Your task to perform on an android device: Open the calendar and show me this week's events Image 0: 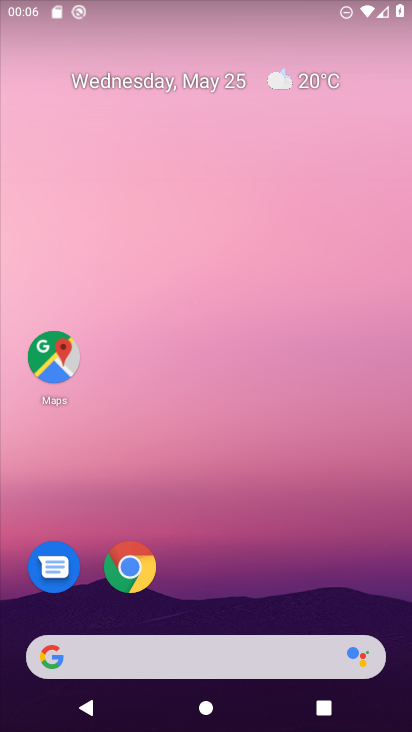
Step 0: click (189, 81)
Your task to perform on an android device: Open the calendar and show me this week's events Image 1: 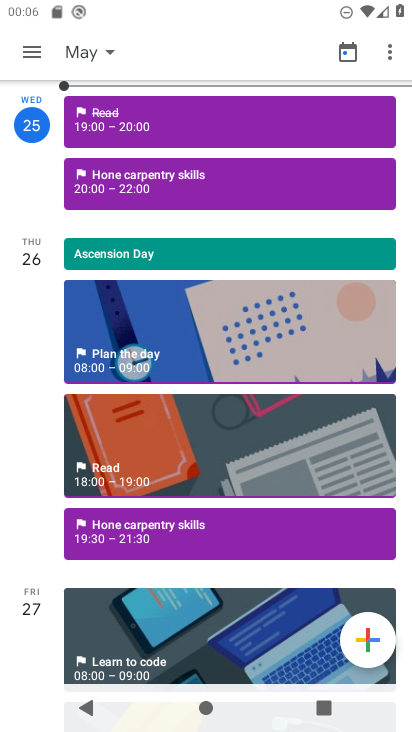
Step 1: click (26, 43)
Your task to perform on an android device: Open the calendar and show me this week's events Image 2: 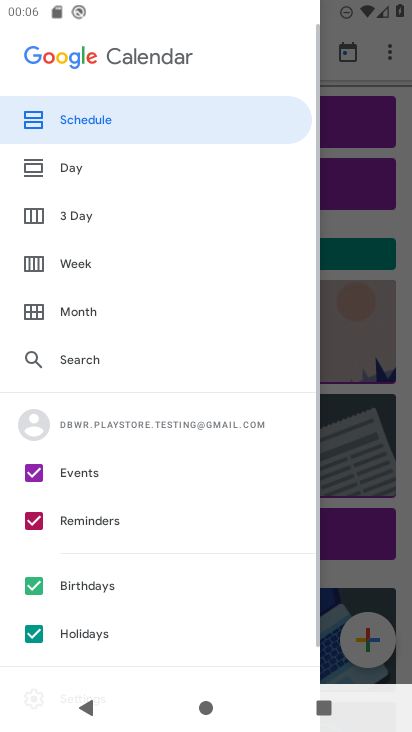
Step 2: click (88, 261)
Your task to perform on an android device: Open the calendar and show me this week's events Image 3: 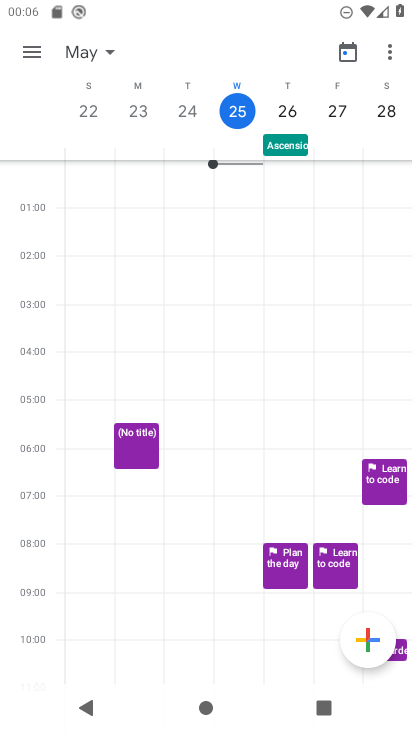
Step 3: task complete